Your task to perform on an android device: open app "Spotify" (install if not already installed) and enter user name: "infallible@icloud.com" and password: "implored" Image 0: 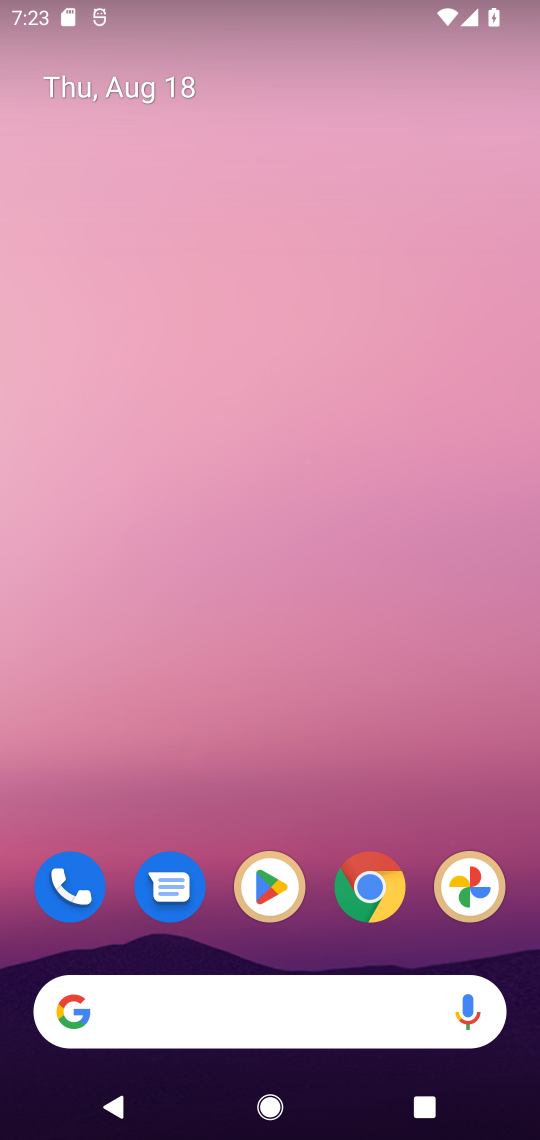
Step 0: drag from (328, 951) to (328, 100)
Your task to perform on an android device: open app "Spotify" (install if not already installed) and enter user name: "infallible@icloud.com" and password: "implored" Image 1: 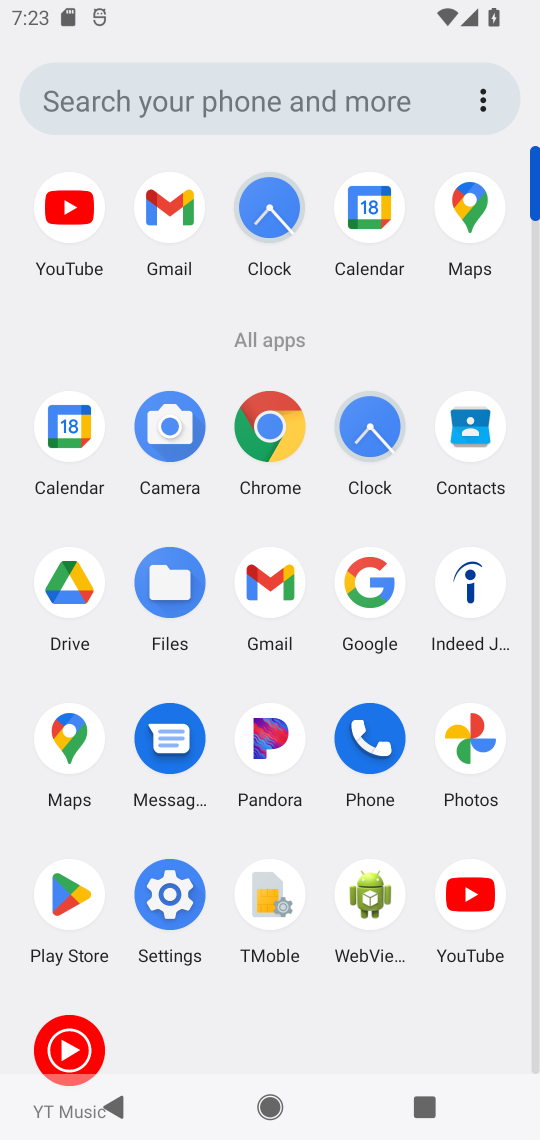
Step 1: click (64, 891)
Your task to perform on an android device: open app "Spotify" (install if not already installed) and enter user name: "infallible@icloud.com" and password: "implored" Image 2: 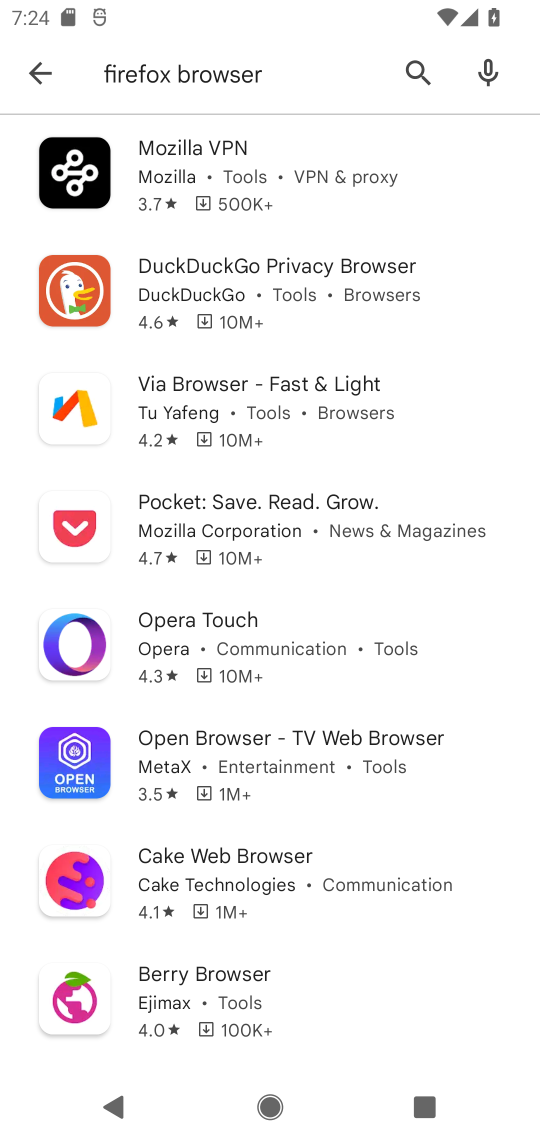
Step 2: click (412, 66)
Your task to perform on an android device: open app "Spotify" (install if not already installed) and enter user name: "infallible@icloud.com" and password: "implored" Image 3: 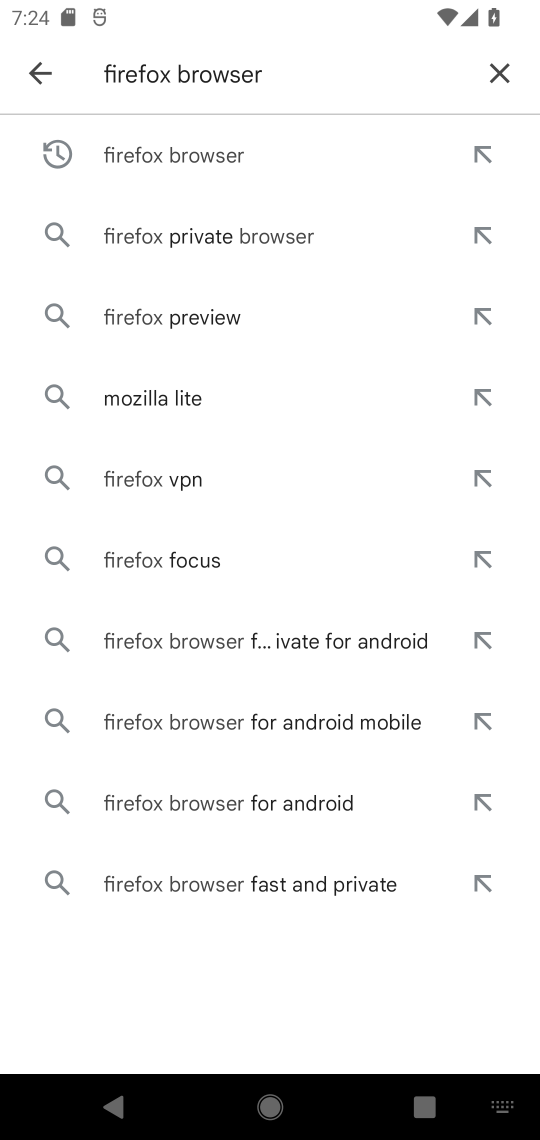
Step 3: click (502, 62)
Your task to perform on an android device: open app "Spotify" (install if not already installed) and enter user name: "infallible@icloud.com" and password: "implored" Image 4: 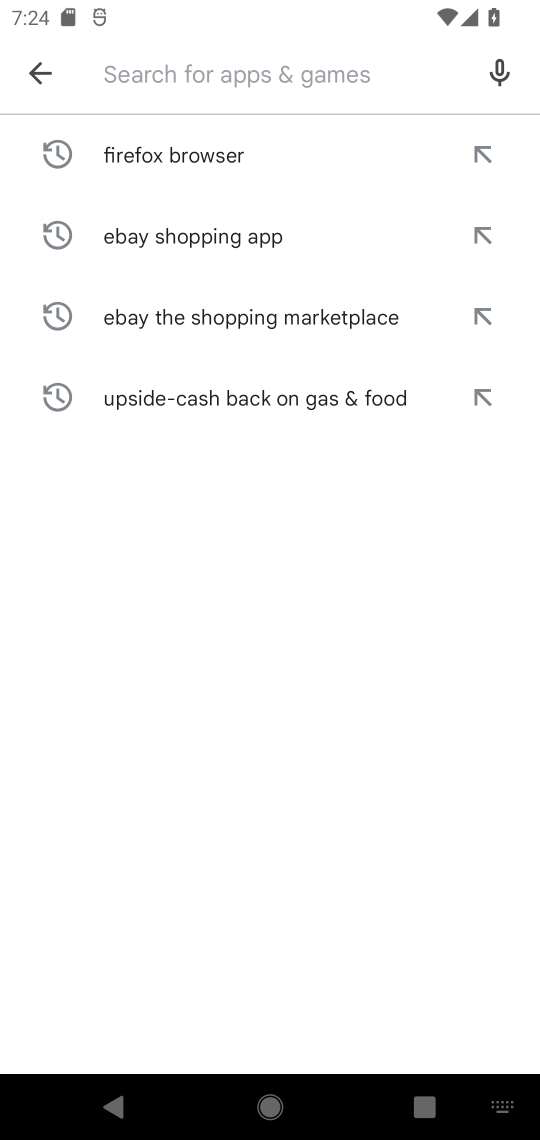
Step 4: type "Spotify"
Your task to perform on an android device: open app "Spotify" (install if not already installed) and enter user name: "infallible@icloud.com" and password: "implored" Image 5: 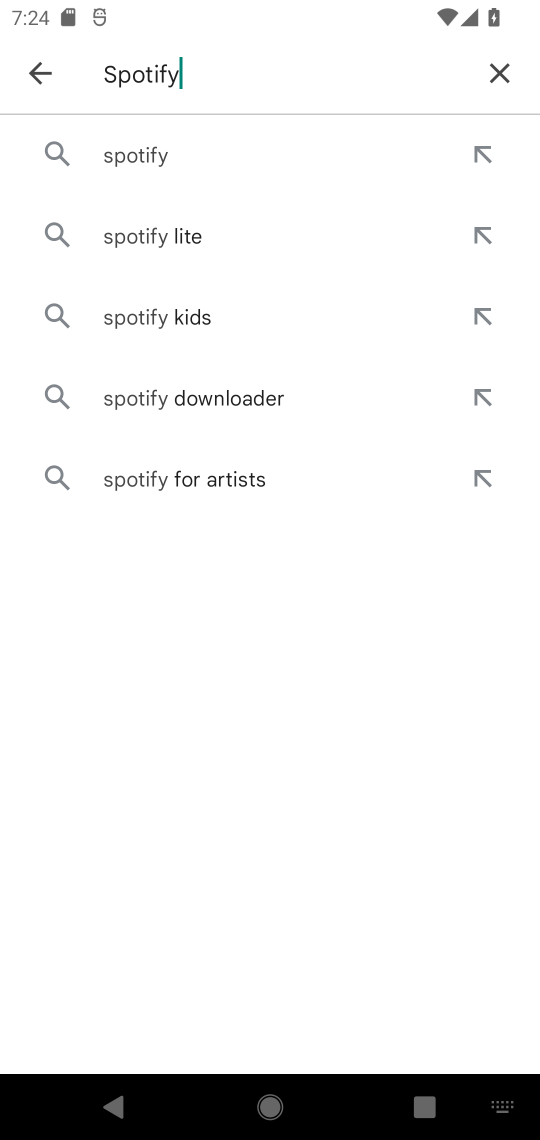
Step 5: click (136, 153)
Your task to perform on an android device: open app "Spotify" (install if not already installed) and enter user name: "infallible@icloud.com" and password: "implored" Image 6: 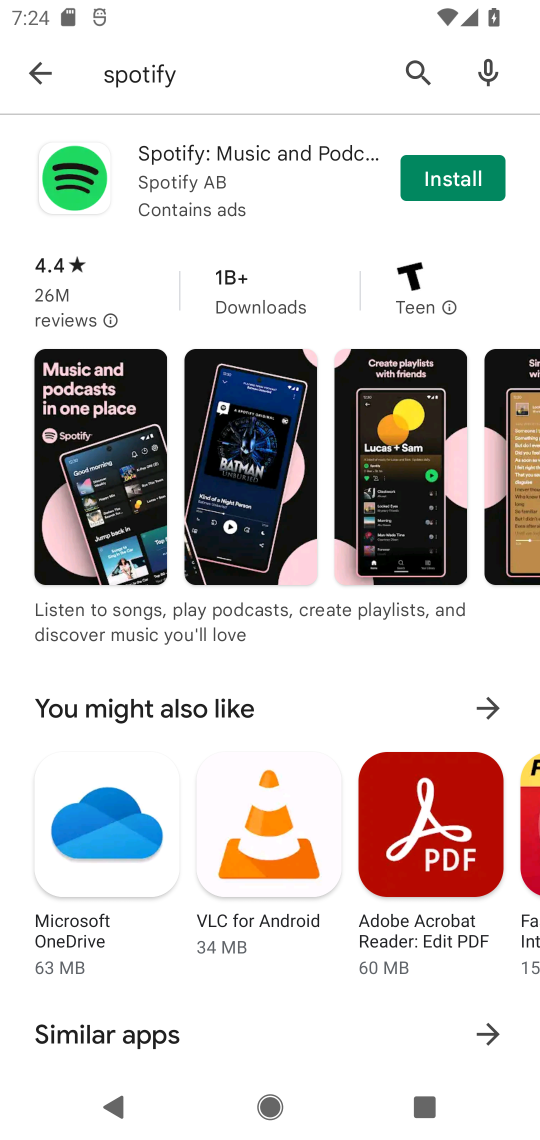
Step 6: click (447, 179)
Your task to perform on an android device: open app "Spotify" (install if not already installed) and enter user name: "infallible@icloud.com" and password: "implored" Image 7: 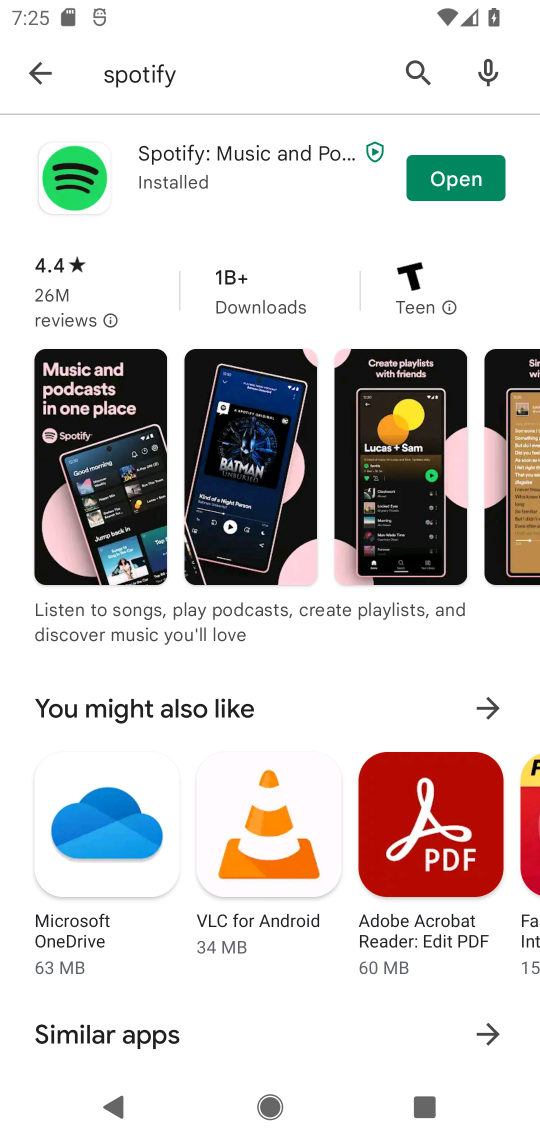
Step 7: click (462, 179)
Your task to perform on an android device: open app "Spotify" (install if not already installed) and enter user name: "infallible@icloud.com" and password: "implored" Image 8: 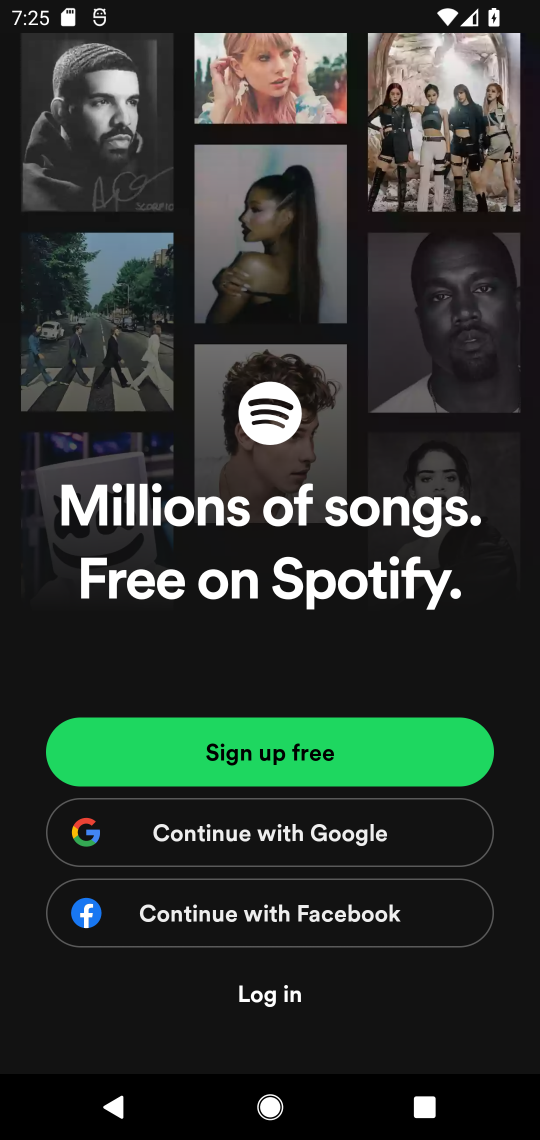
Step 8: click (284, 998)
Your task to perform on an android device: open app "Spotify" (install if not already installed) and enter user name: "infallible@icloud.com" and password: "implored" Image 9: 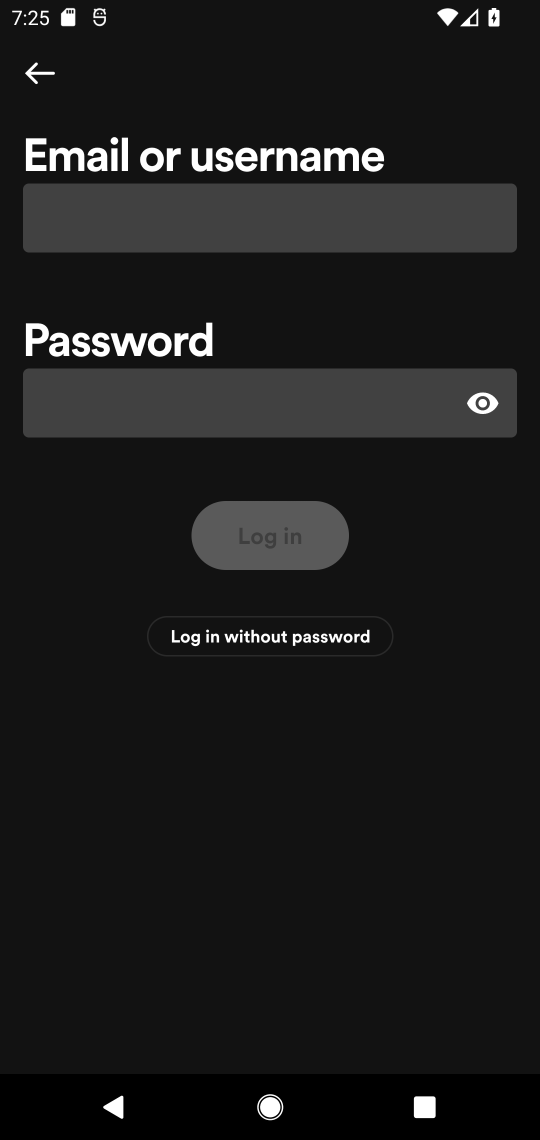
Step 9: click (378, 225)
Your task to perform on an android device: open app "Spotify" (install if not already installed) and enter user name: "infallible@icloud.com" and password: "implored" Image 10: 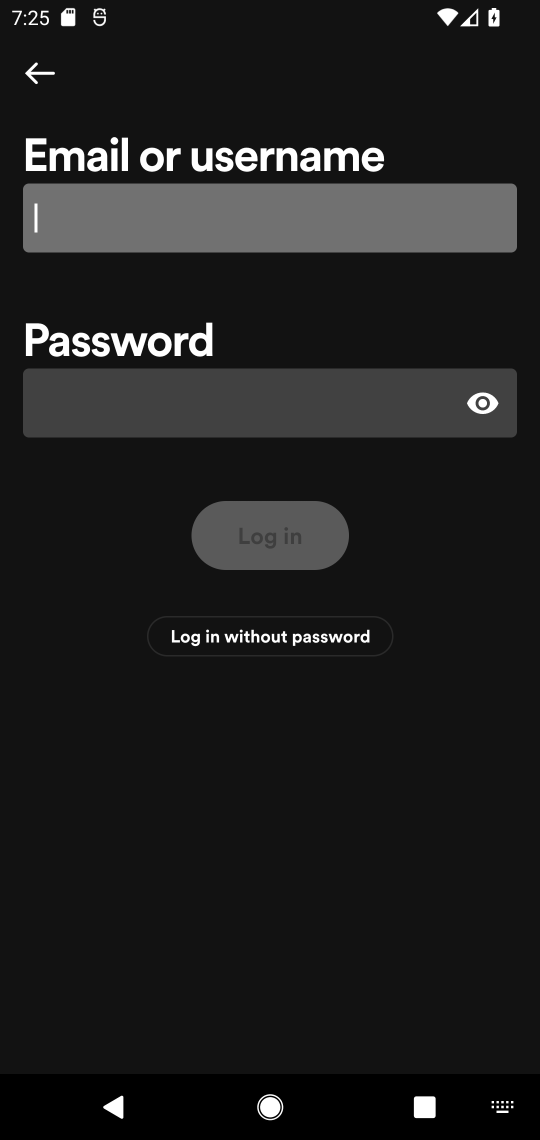
Step 10: type "infallible@icloud.com"
Your task to perform on an android device: open app "Spotify" (install if not already installed) and enter user name: "infallible@icloud.com" and password: "implored" Image 11: 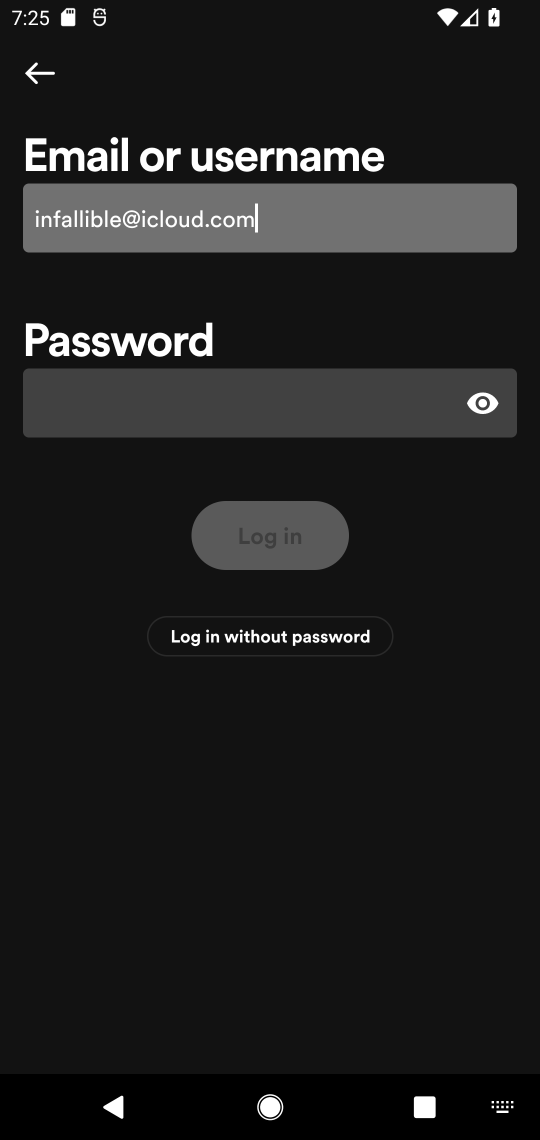
Step 11: click (253, 397)
Your task to perform on an android device: open app "Spotify" (install if not already installed) and enter user name: "infallible@icloud.com" and password: "implored" Image 12: 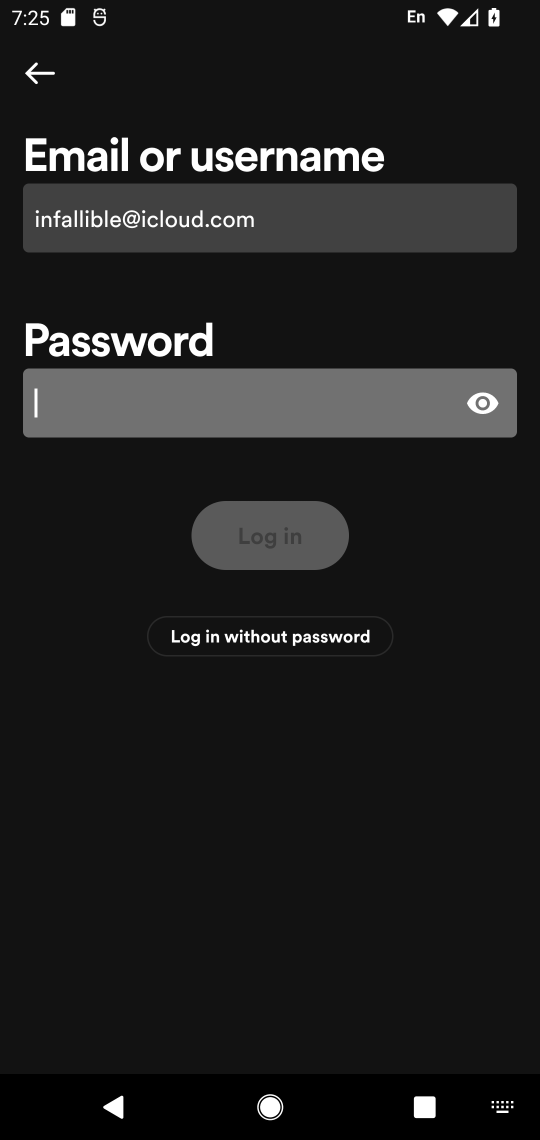
Step 12: type "implored"
Your task to perform on an android device: open app "Spotify" (install if not already installed) and enter user name: "infallible@icloud.com" and password: "implored" Image 13: 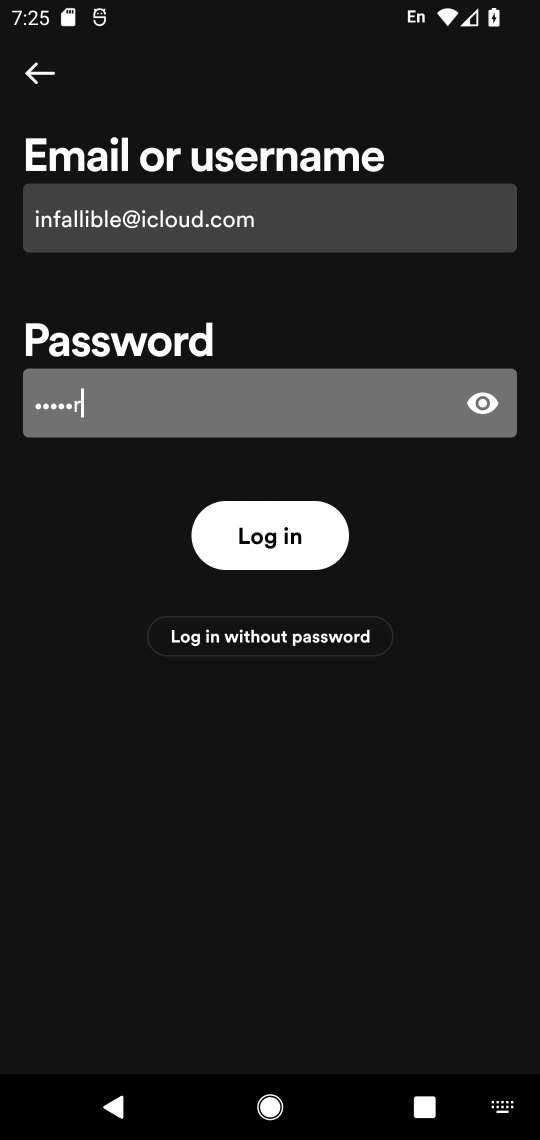
Step 13: type ""
Your task to perform on an android device: open app "Spotify" (install if not already installed) and enter user name: "infallible@icloud.com" and password: "implored" Image 14: 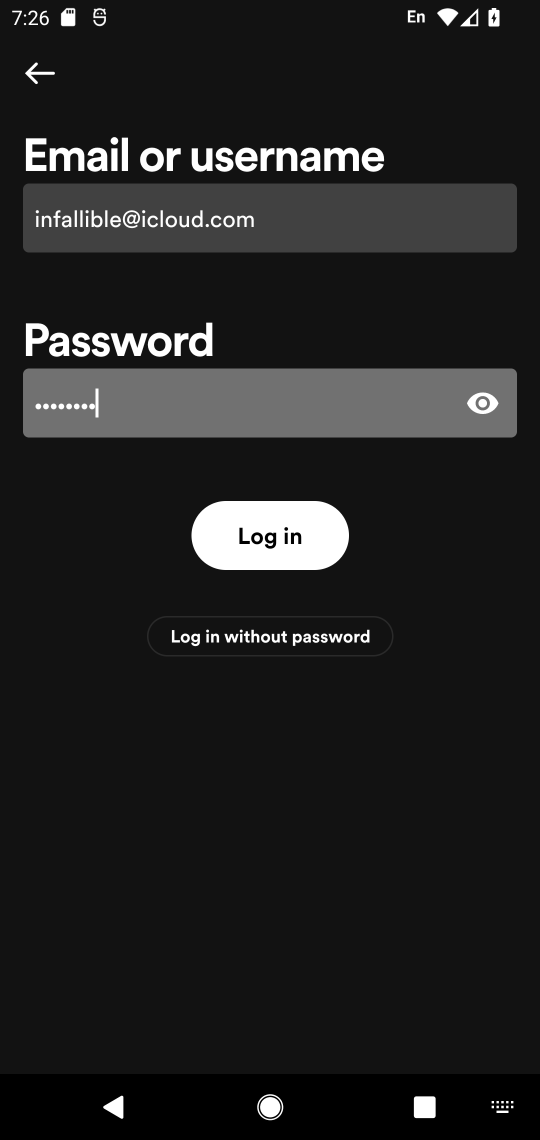
Step 14: task complete